Your task to perform on an android device: Open Wikipedia Image 0: 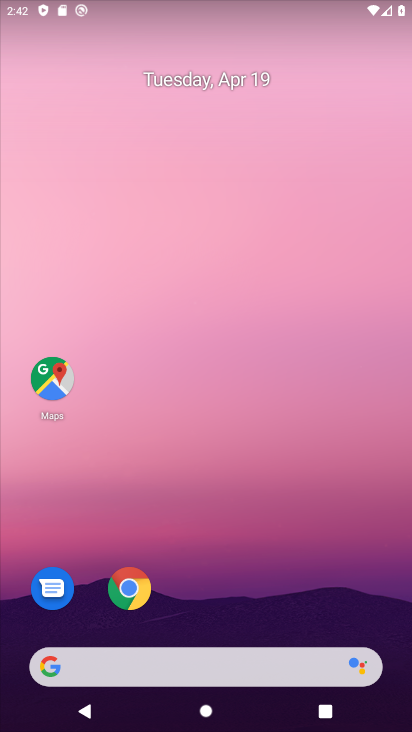
Step 0: drag from (209, 609) to (331, 101)
Your task to perform on an android device: Open Wikipedia Image 1: 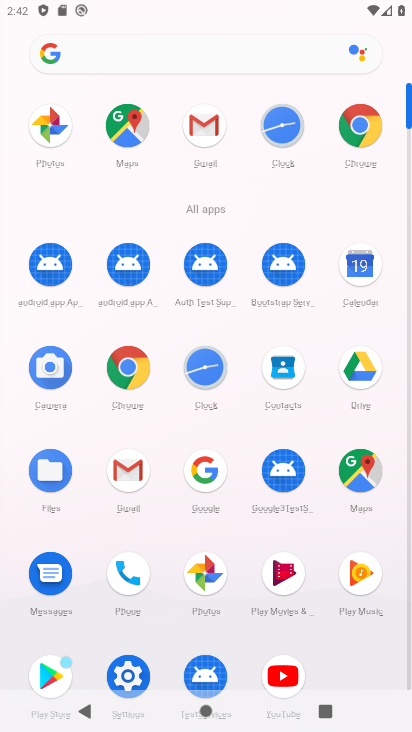
Step 1: click (115, 382)
Your task to perform on an android device: Open Wikipedia Image 2: 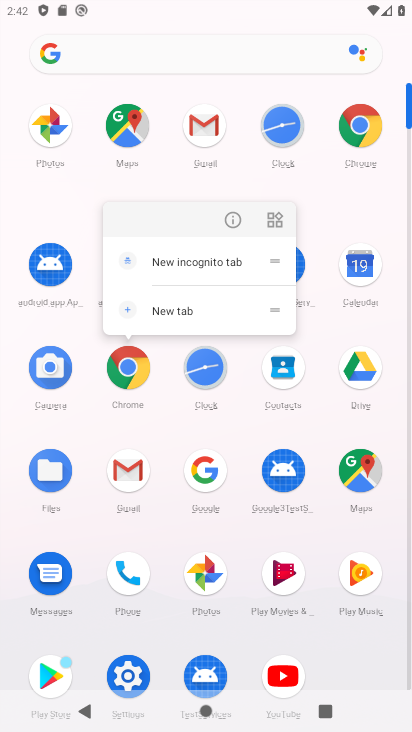
Step 2: click (238, 228)
Your task to perform on an android device: Open Wikipedia Image 3: 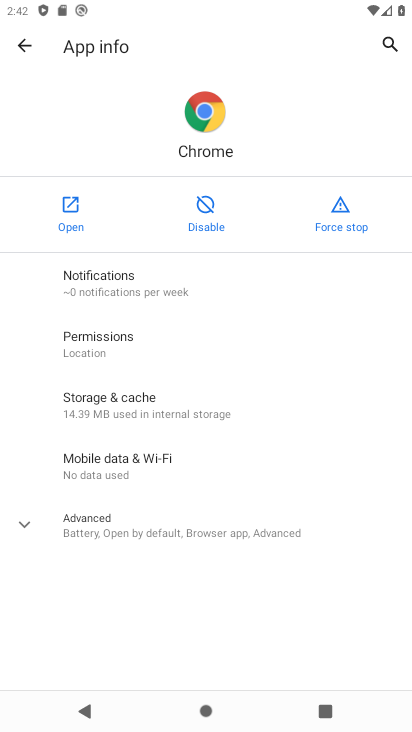
Step 3: click (74, 216)
Your task to perform on an android device: Open Wikipedia Image 4: 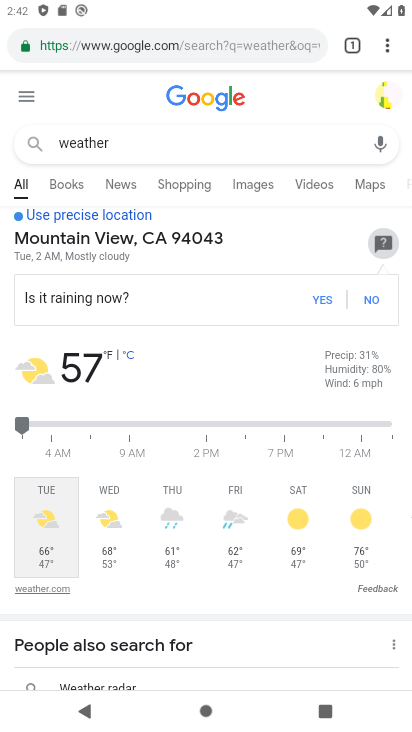
Step 4: click (169, 33)
Your task to perform on an android device: Open Wikipedia Image 5: 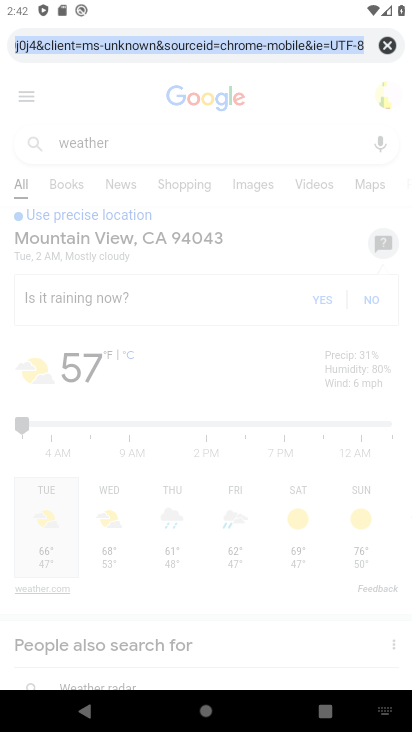
Step 5: click (388, 50)
Your task to perform on an android device: Open Wikipedia Image 6: 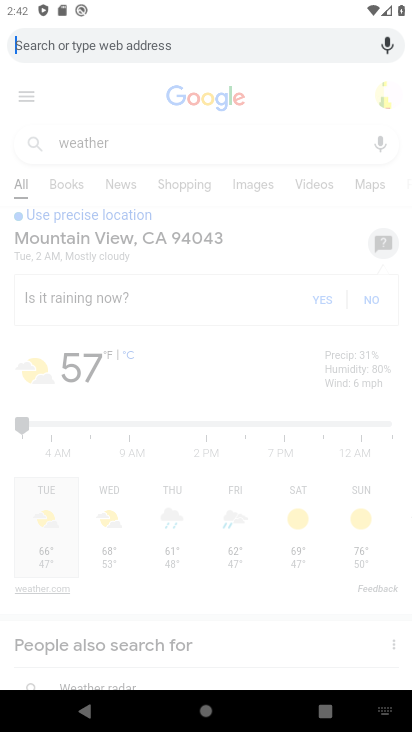
Step 6: type "wikipedia"
Your task to perform on an android device: Open Wikipedia Image 7: 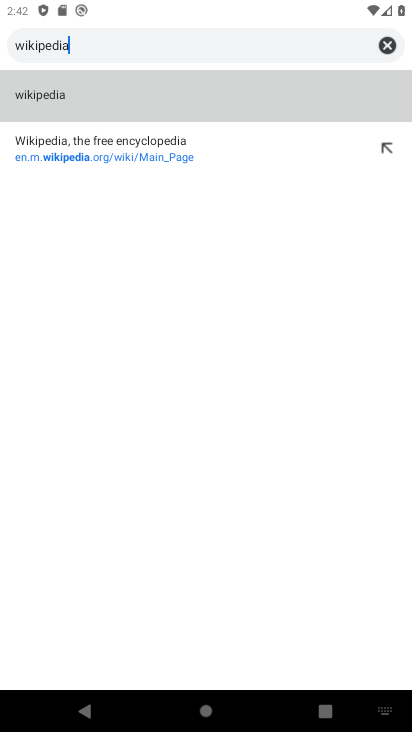
Step 7: click (79, 114)
Your task to perform on an android device: Open Wikipedia Image 8: 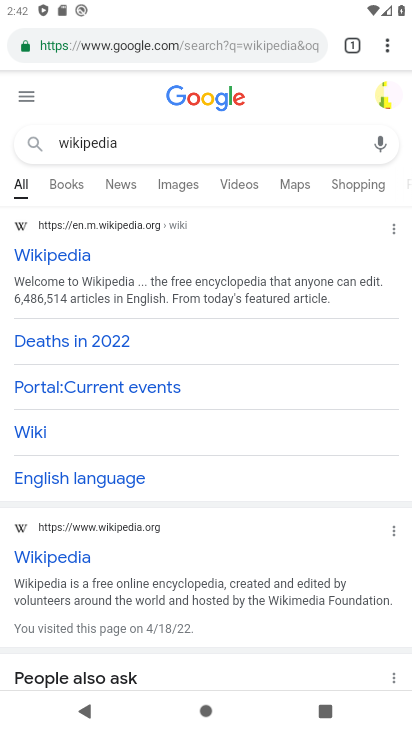
Step 8: drag from (271, 660) to (386, 117)
Your task to perform on an android device: Open Wikipedia Image 9: 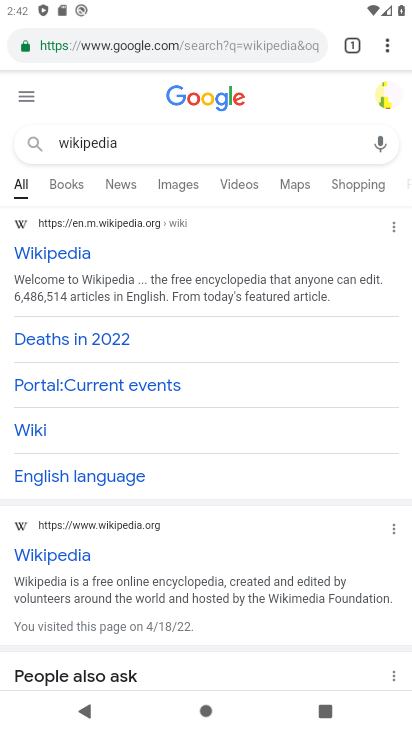
Step 9: drag from (167, 376) to (270, 723)
Your task to perform on an android device: Open Wikipedia Image 10: 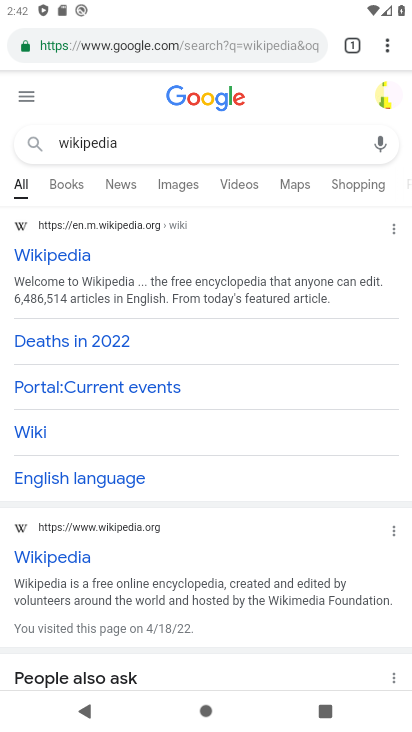
Step 10: drag from (126, 347) to (223, 726)
Your task to perform on an android device: Open Wikipedia Image 11: 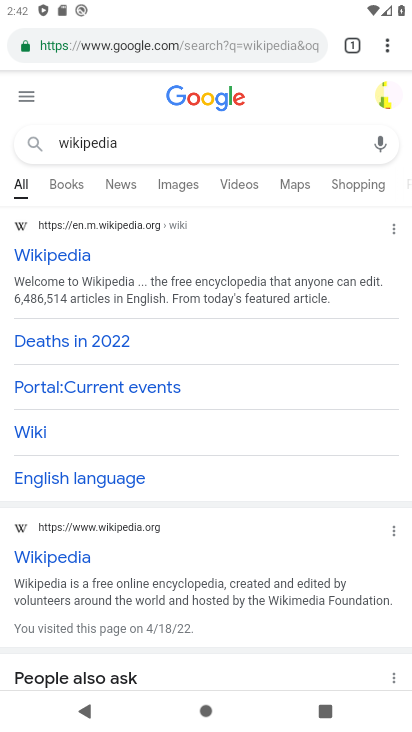
Step 11: drag from (240, 381) to (237, 688)
Your task to perform on an android device: Open Wikipedia Image 12: 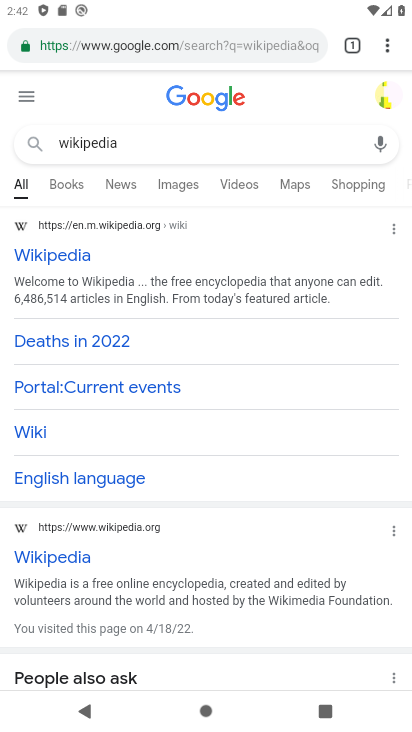
Step 12: drag from (261, 385) to (286, 667)
Your task to perform on an android device: Open Wikipedia Image 13: 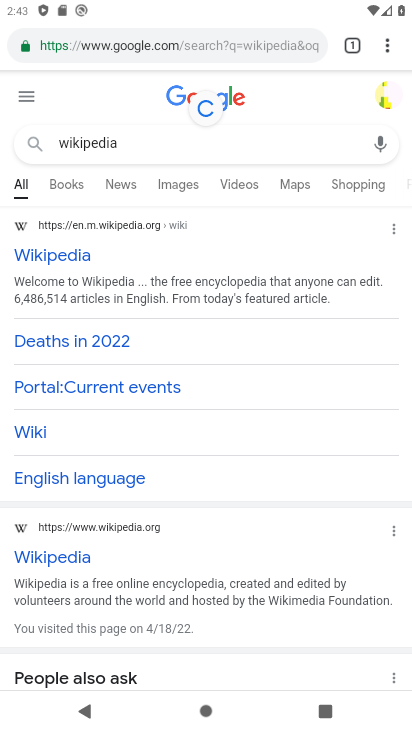
Step 13: click (51, 253)
Your task to perform on an android device: Open Wikipedia Image 14: 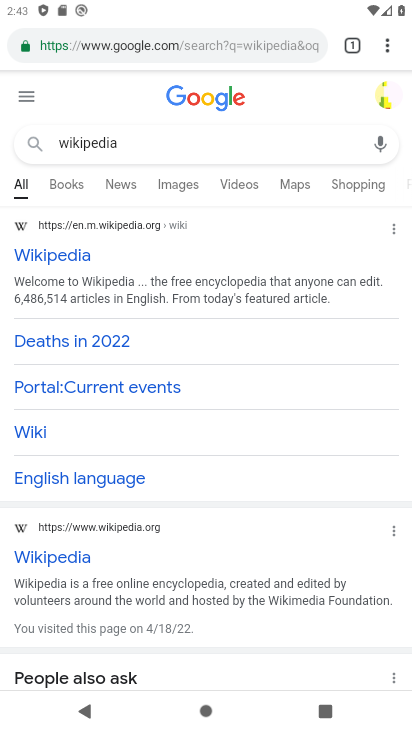
Step 14: click (61, 249)
Your task to perform on an android device: Open Wikipedia Image 15: 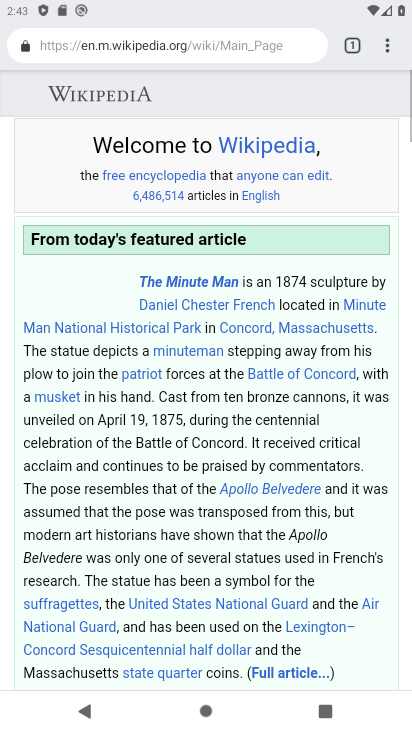
Step 15: task complete